Your task to perform on an android device: Open the phone app and click the voicemail tab. Image 0: 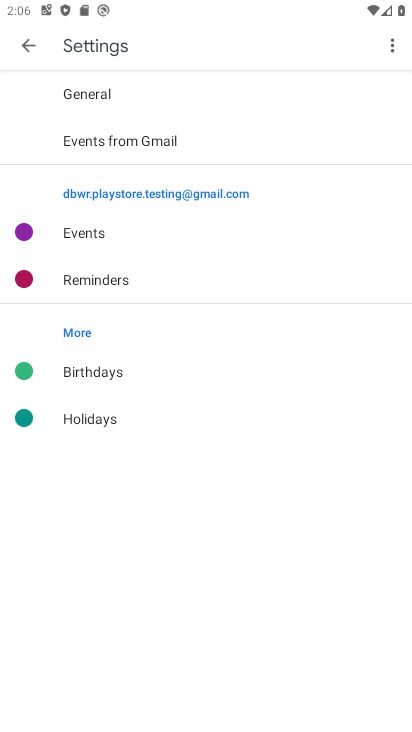
Step 0: press back button
Your task to perform on an android device: Open the phone app and click the voicemail tab. Image 1: 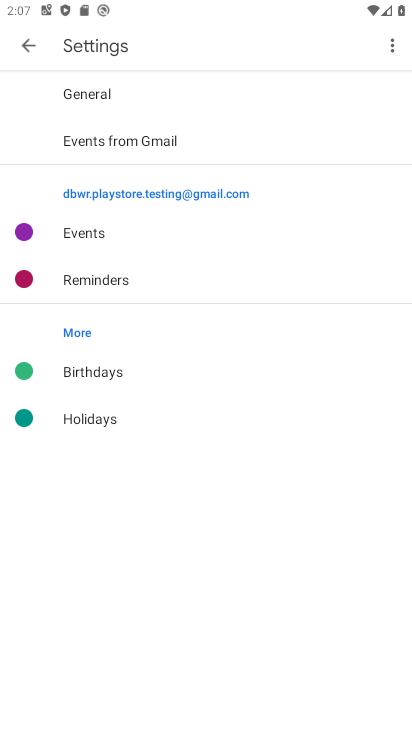
Step 1: press back button
Your task to perform on an android device: Open the phone app and click the voicemail tab. Image 2: 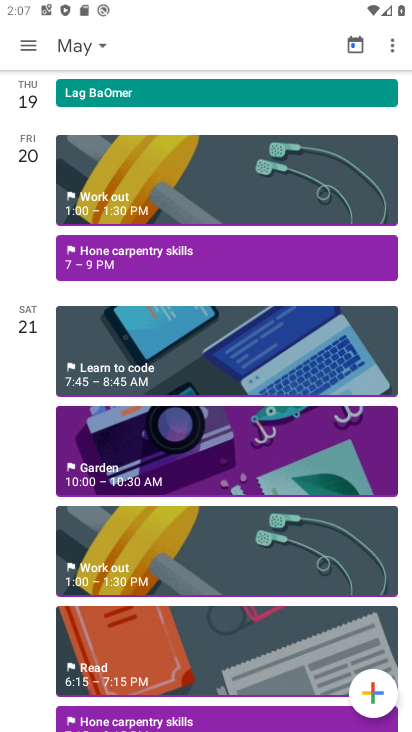
Step 2: press home button
Your task to perform on an android device: Open the phone app and click the voicemail tab. Image 3: 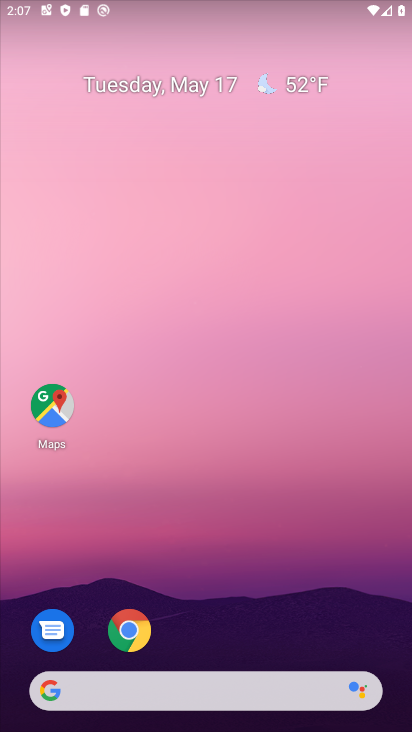
Step 3: drag from (219, 632) to (318, 12)
Your task to perform on an android device: Open the phone app and click the voicemail tab. Image 4: 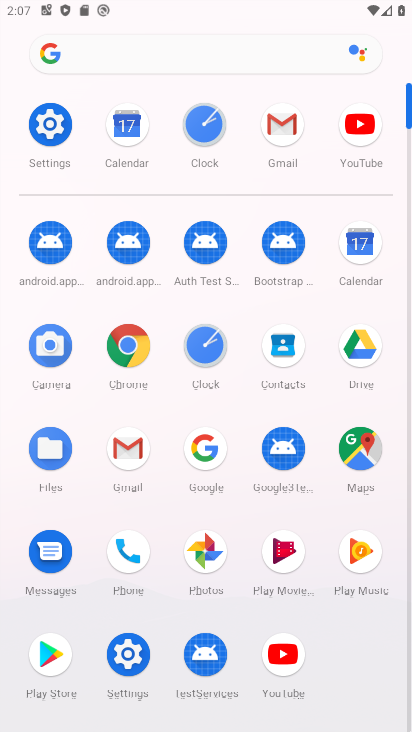
Step 4: click (116, 557)
Your task to perform on an android device: Open the phone app and click the voicemail tab. Image 5: 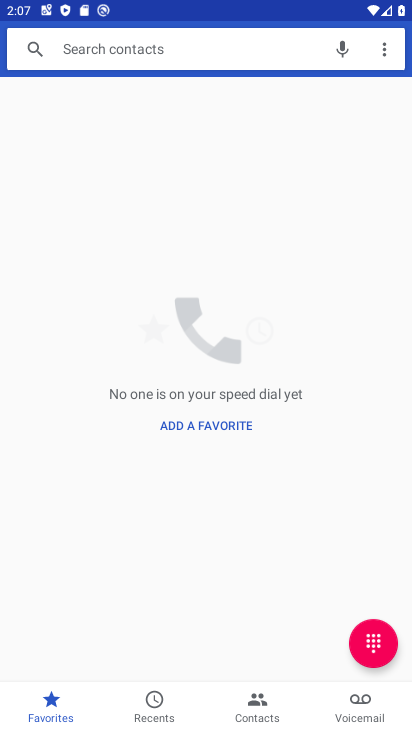
Step 5: click (347, 712)
Your task to perform on an android device: Open the phone app and click the voicemail tab. Image 6: 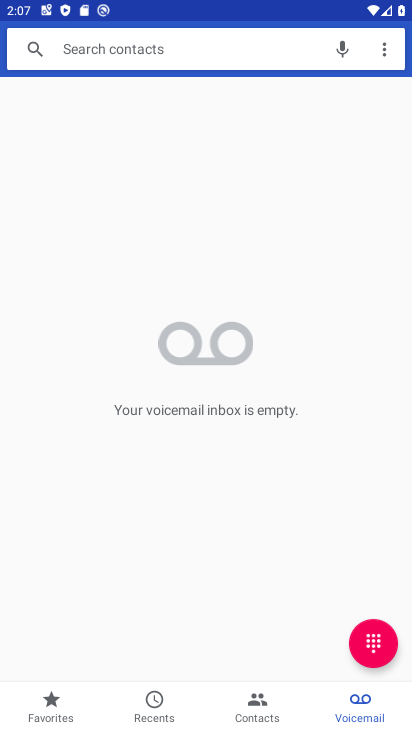
Step 6: task complete